Your task to perform on an android device: Open calendar and show me the third week of next month Image 0: 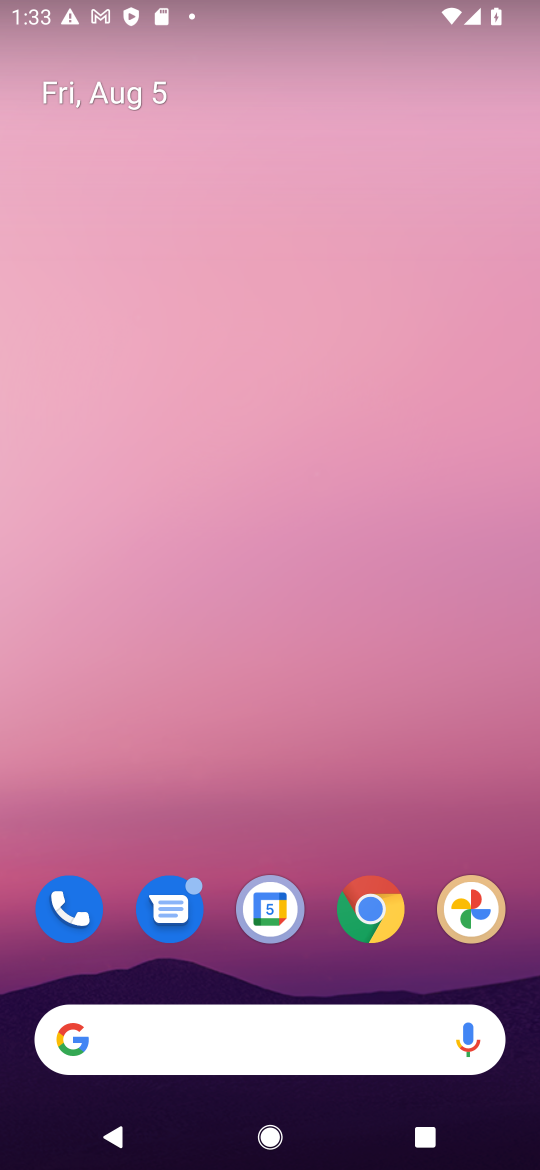
Step 0: click (268, 908)
Your task to perform on an android device: Open calendar and show me the third week of next month Image 1: 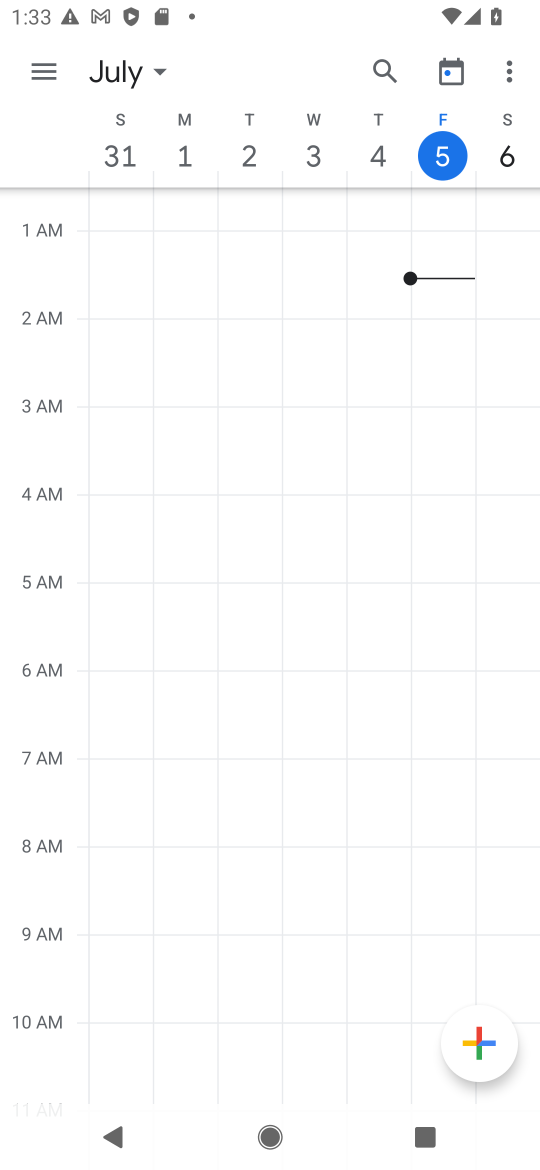
Step 1: click (159, 62)
Your task to perform on an android device: Open calendar and show me the third week of next month Image 2: 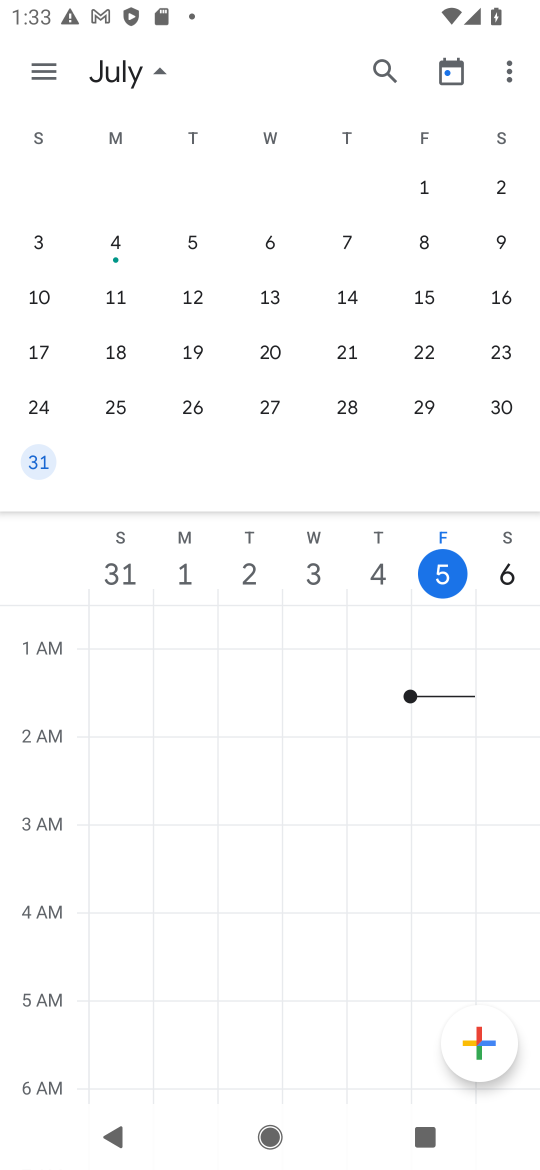
Step 2: drag from (493, 341) to (0, 180)
Your task to perform on an android device: Open calendar and show me the third week of next month Image 3: 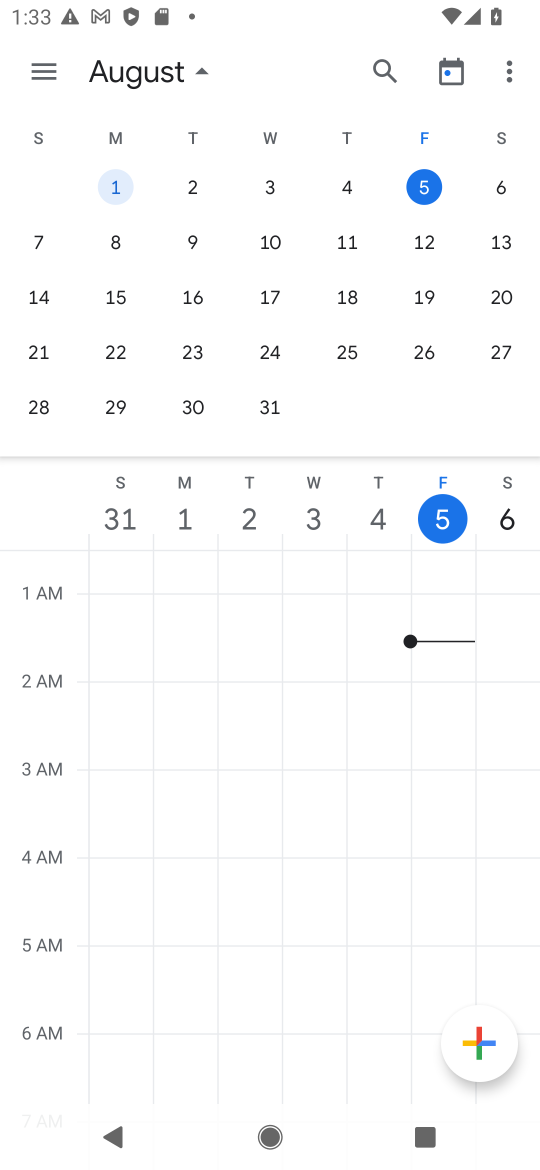
Step 3: drag from (456, 279) to (28, 117)
Your task to perform on an android device: Open calendar and show me the third week of next month Image 4: 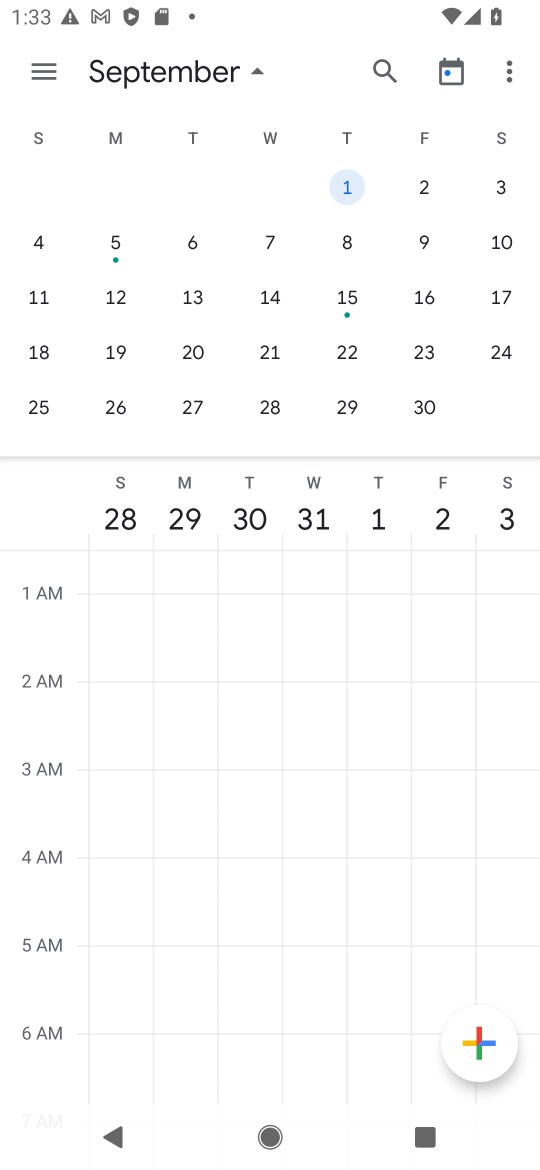
Step 4: click (275, 285)
Your task to perform on an android device: Open calendar and show me the third week of next month Image 5: 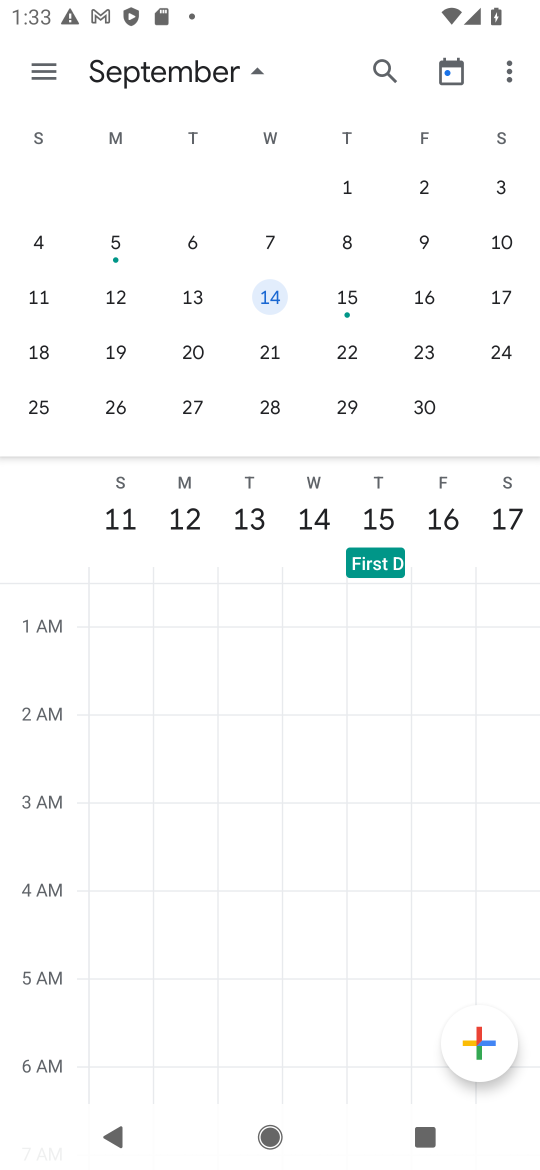
Step 5: task complete